Your task to perform on an android device: Go to accessibility settings Image 0: 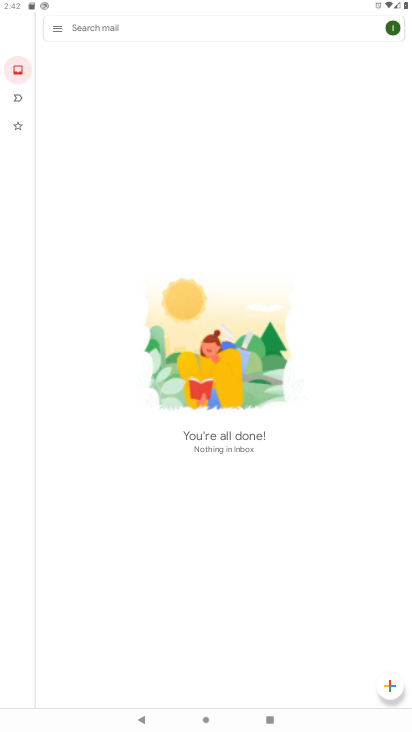
Step 0: press home button
Your task to perform on an android device: Go to accessibility settings Image 1: 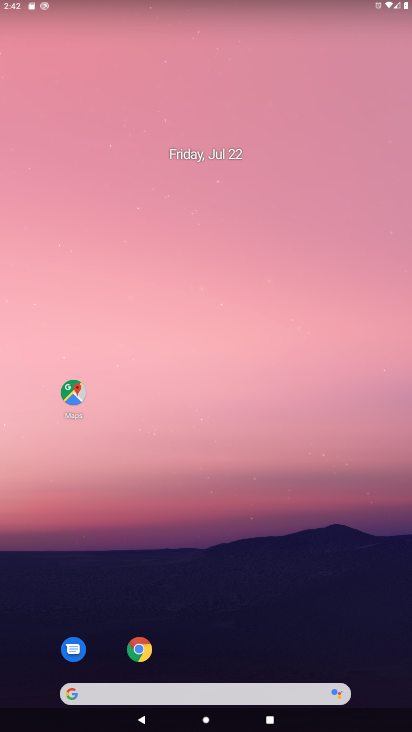
Step 1: drag from (237, 730) to (227, 299)
Your task to perform on an android device: Go to accessibility settings Image 2: 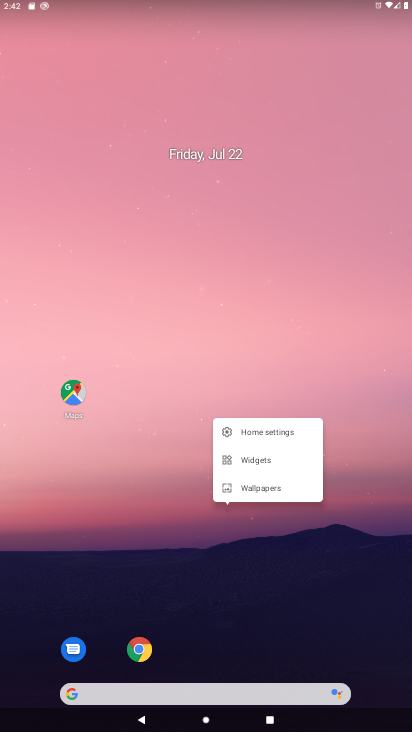
Step 2: click (179, 477)
Your task to perform on an android device: Go to accessibility settings Image 3: 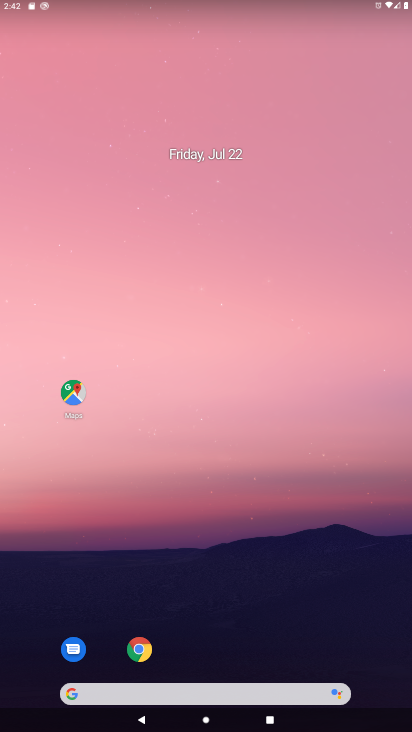
Step 3: drag from (226, 714) to (137, 38)
Your task to perform on an android device: Go to accessibility settings Image 4: 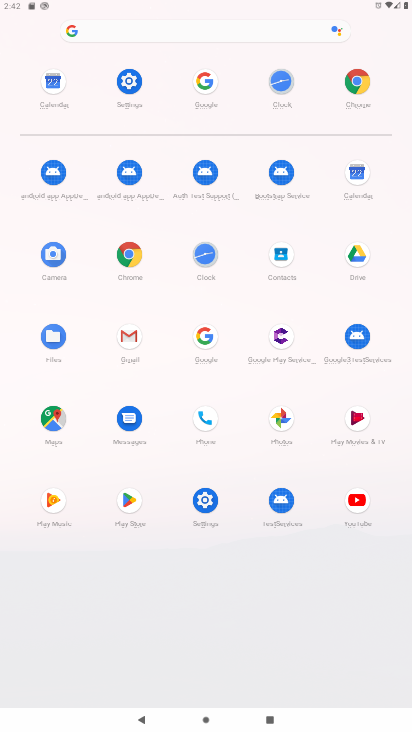
Step 4: click (126, 85)
Your task to perform on an android device: Go to accessibility settings Image 5: 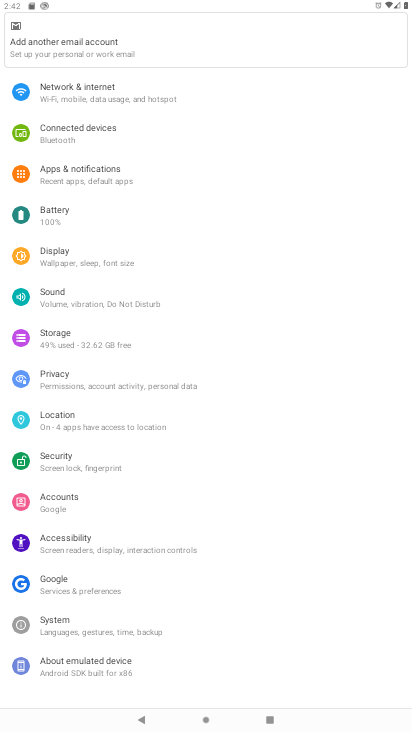
Step 5: click (60, 542)
Your task to perform on an android device: Go to accessibility settings Image 6: 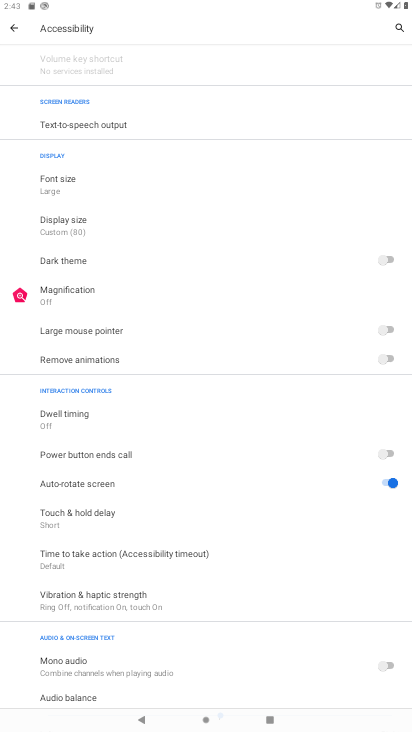
Step 6: task complete